Your task to perform on an android device: turn on location history Image 0: 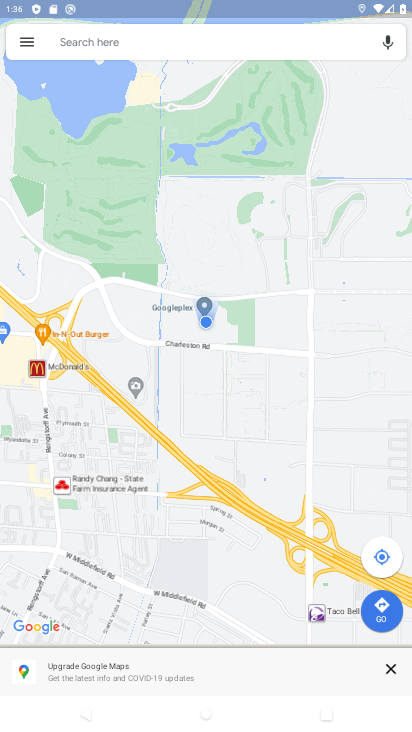
Step 0: press home button
Your task to perform on an android device: turn on location history Image 1: 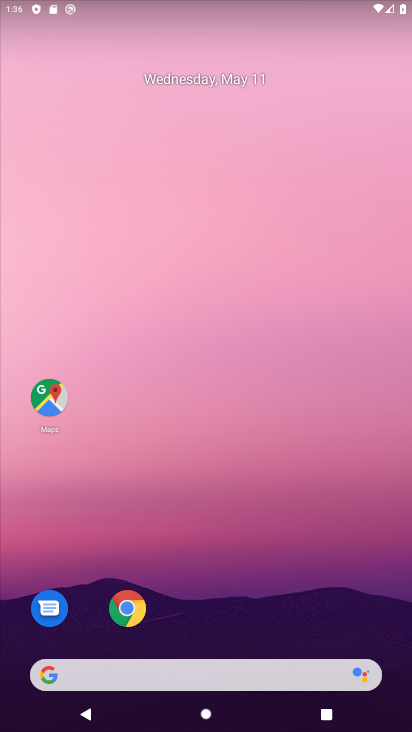
Step 1: click (46, 393)
Your task to perform on an android device: turn on location history Image 2: 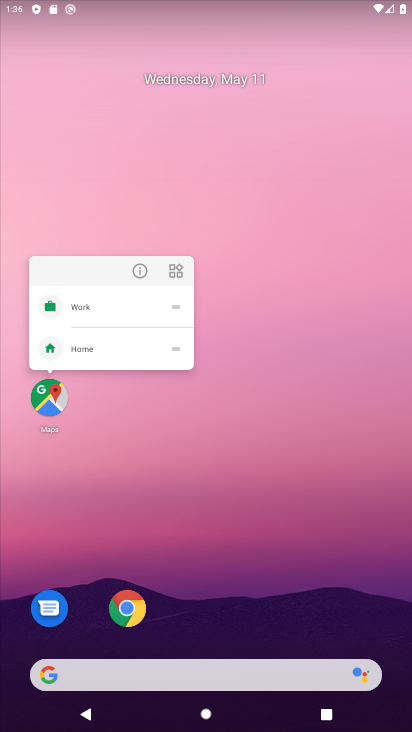
Step 2: click (46, 393)
Your task to perform on an android device: turn on location history Image 3: 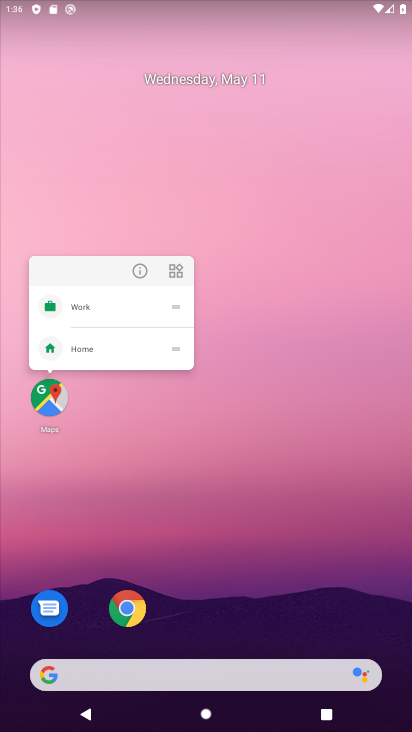
Step 3: click (52, 413)
Your task to perform on an android device: turn on location history Image 4: 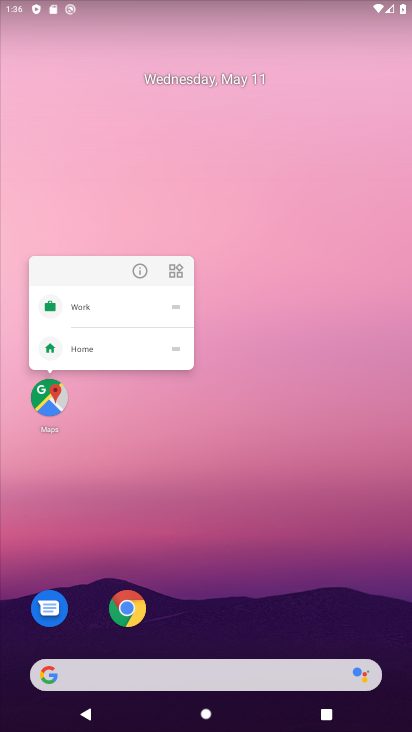
Step 4: click (54, 413)
Your task to perform on an android device: turn on location history Image 5: 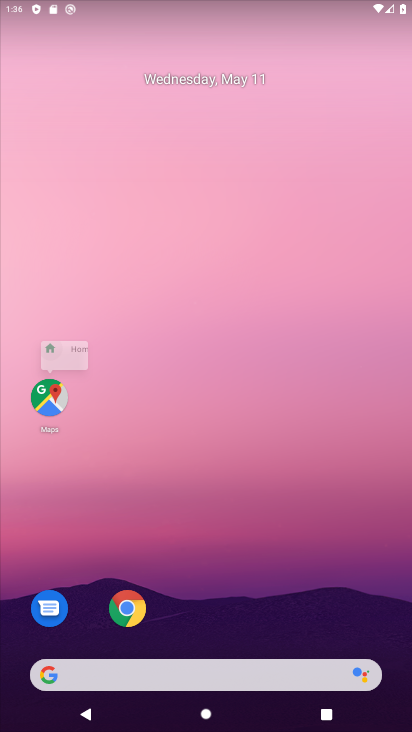
Step 5: click (54, 413)
Your task to perform on an android device: turn on location history Image 6: 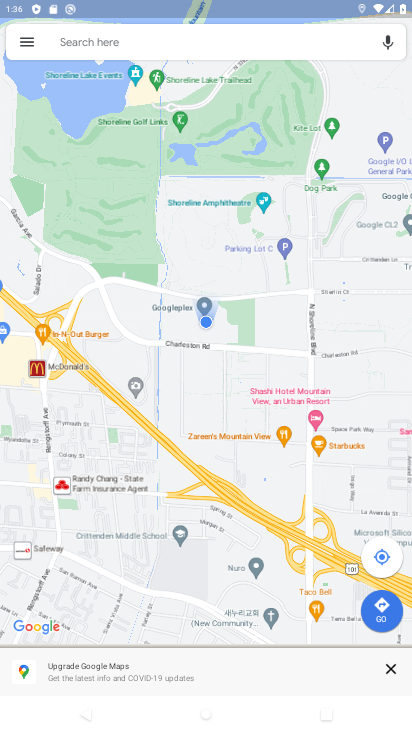
Step 6: click (32, 41)
Your task to perform on an android device: turn on location history Image 7: 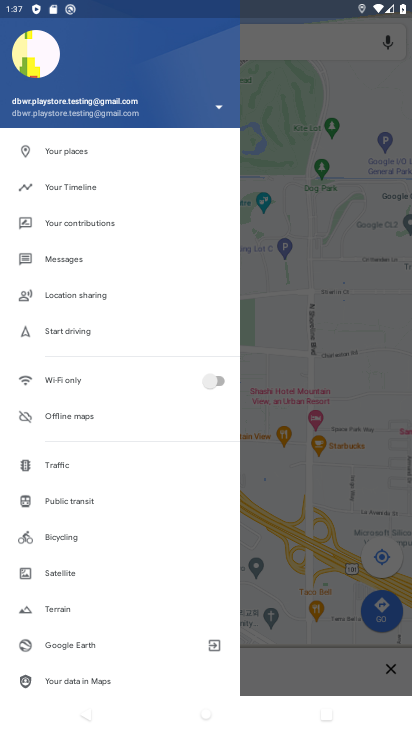
Step 7: drag from (82, 639) to (86, 311)
Your task to perform on an android device: turn on location history Image 8: 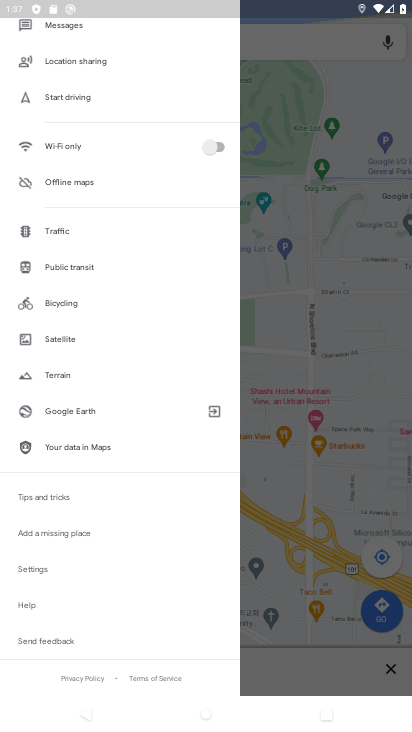
Step 8: click (135, 571)
Your task to perform on an android device: turn on location history Image 9: 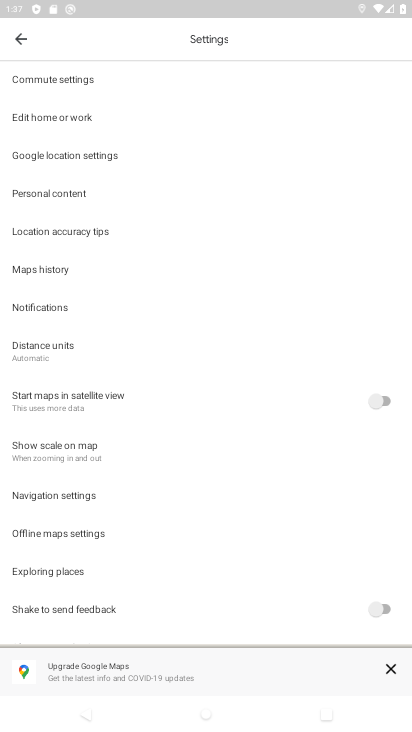
Step 9: task complete